Your task to perform on an android device: Open Android settings Image 0: 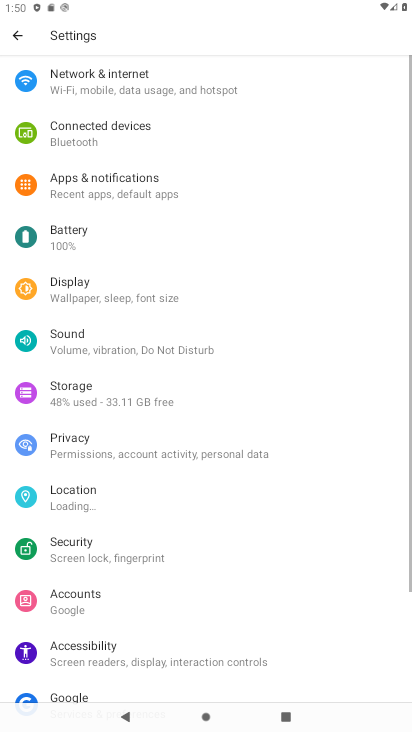
Step 0: task complete